Your task to perform on an android device: turn off notifications in google photos Image 0: 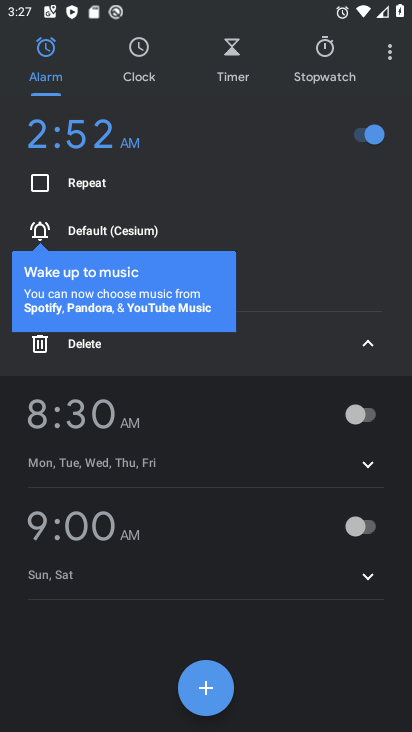
Step 0: press home button
Your task to perform on an android device: turn off notifications in google photos Image 1: 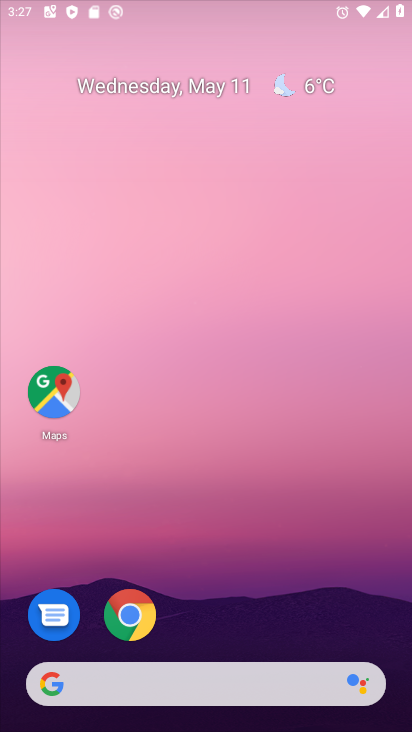
Step 1: drag from (249, 602) to (319, 35)
Your task to perform on an android device: turn off notifications in google photos Image 2: 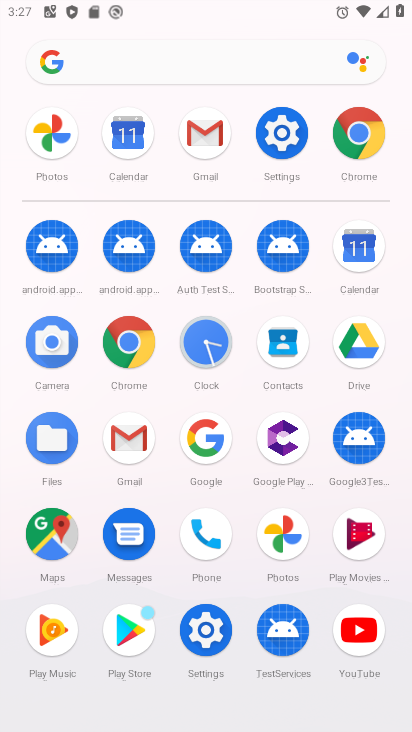
Step 2: click (289, 530)
Your task to perform on an android device: turn off notifications in google photos Image 3: 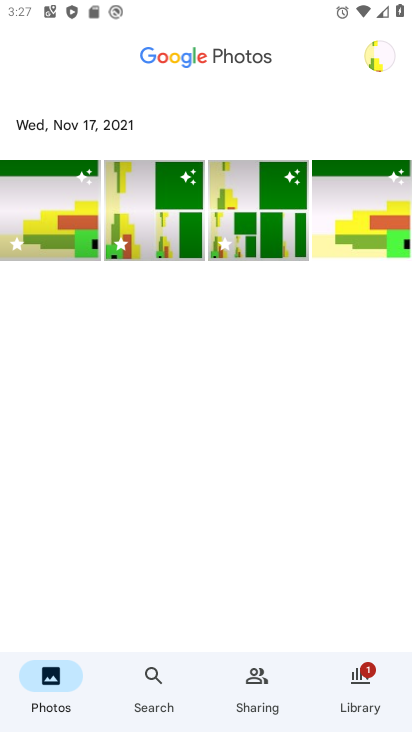
Step 3: click (383, 58)
Your task to perform on an android device: turn off notifications in google photos Image 4: 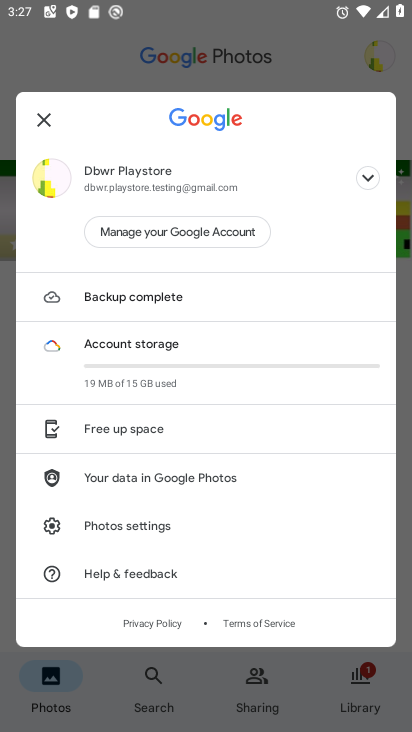
Step 4: drag from (204, 560) to (282, 244)
Your task to perform on an android device: turn off notifications in google photos Image 5: 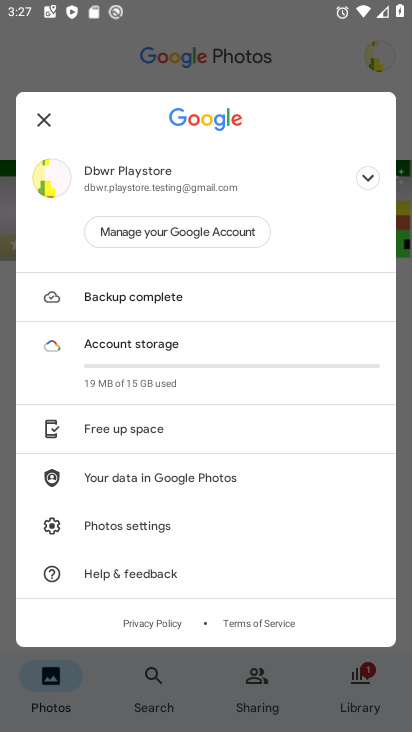
Step 5: click (129, 535)
Your task to perform on an android device: turn off notifications in google photos Image 6: 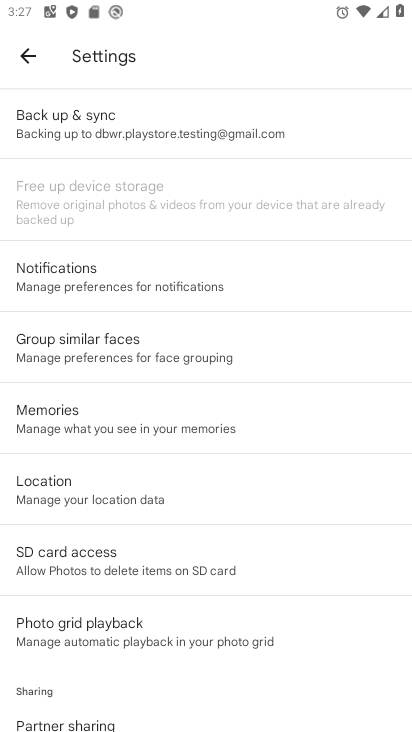
Step 6: click (127, 275)
Your task to perform on an android device: turn off notifications in google photos Image 7: 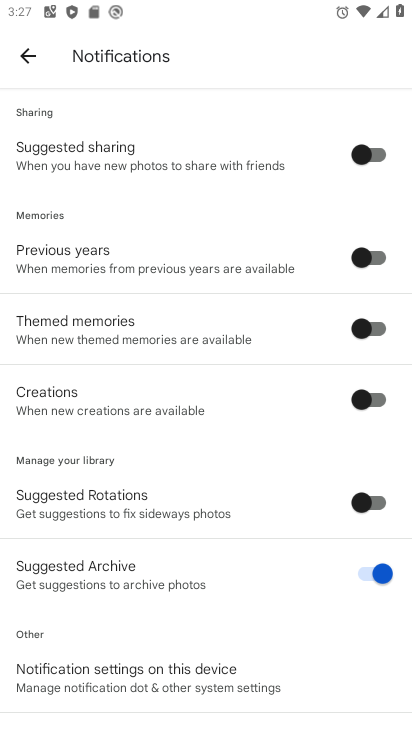
Step 7: drag from (198, 635) to (287, 249)
Your task to perform on an android device: turn off notifications in google photos Image 8: 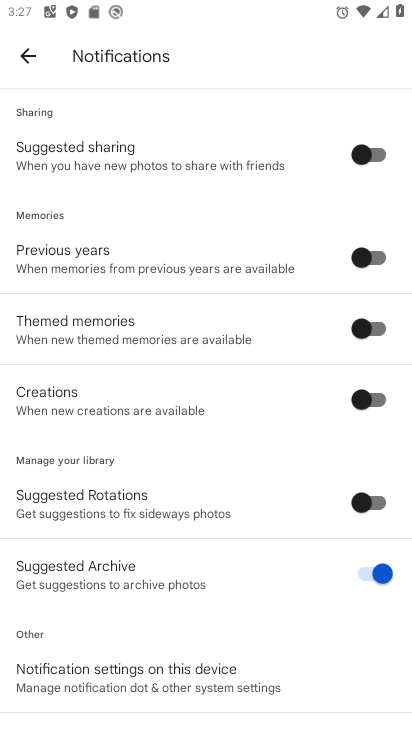
Step 8: click (144, 680)
Your task to perform on an android device: turn off notifications in google photos Image 9: 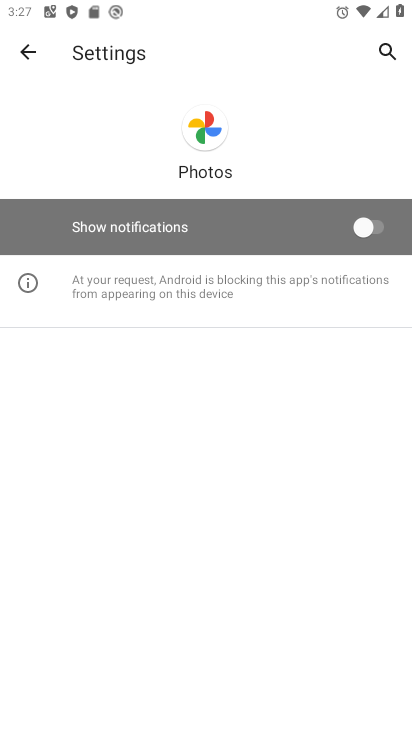
Step 9: task complete